Your task to perform on an android device: change alarm snooze length Image 0: 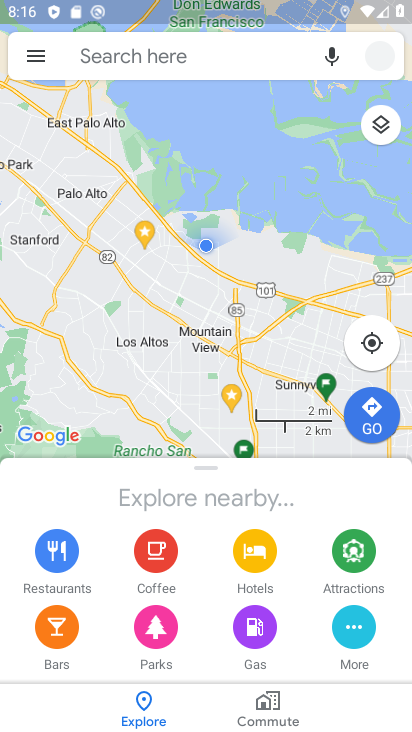
Step 0: press home button
Your task to perform on an android device: change alarm snooze length Image 1: 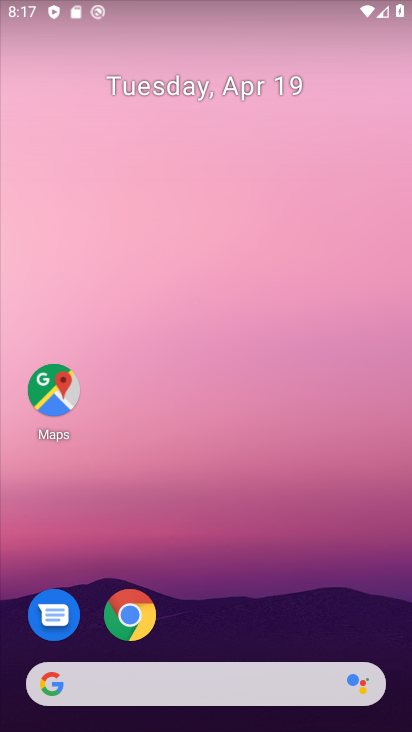
Step 1: drag from (218, 564) to (285, 90)
Your task to perform on an android device: change alarm snooze length Image 2: 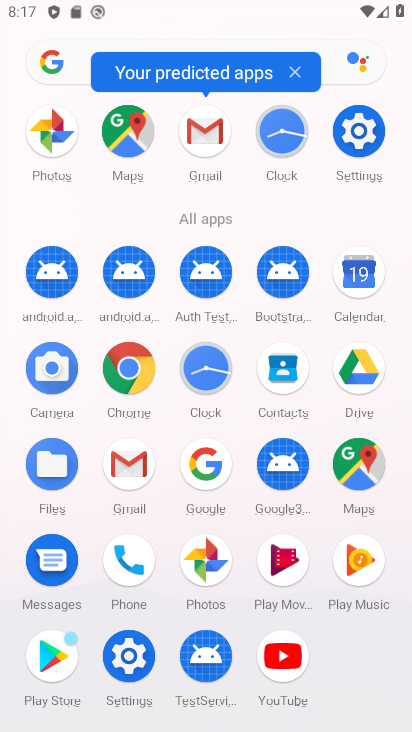
Step 2: click (274, 123)
Your task to perform on an android device: change alarm snooze length Image 3: 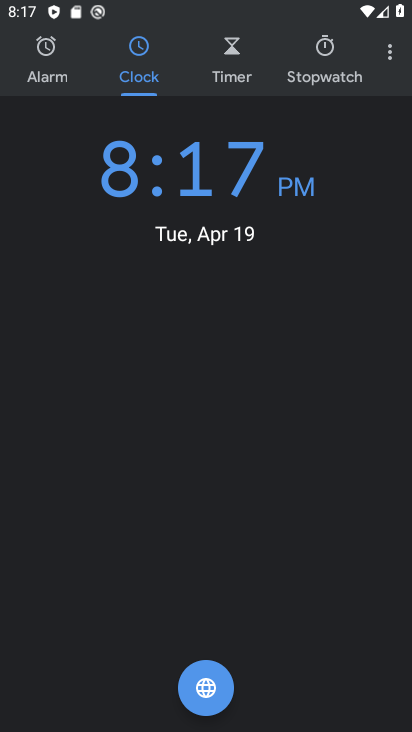
Step 3: click (392, 54)
Your task to perform on an android device: change alarm snooze length Image 4: 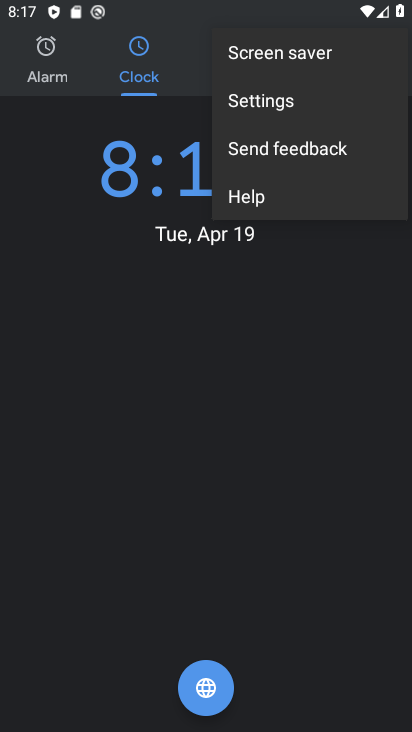
Step 4: click (285, 106)
Your task to perform on an android device: change alarm snooze length Image 5: 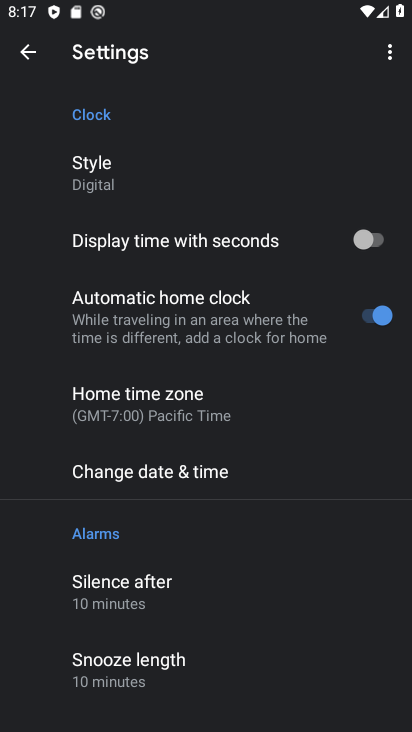
Step 5: click (154, 661)
Your task to perform on an android device: change alarm snooze length Image 6: 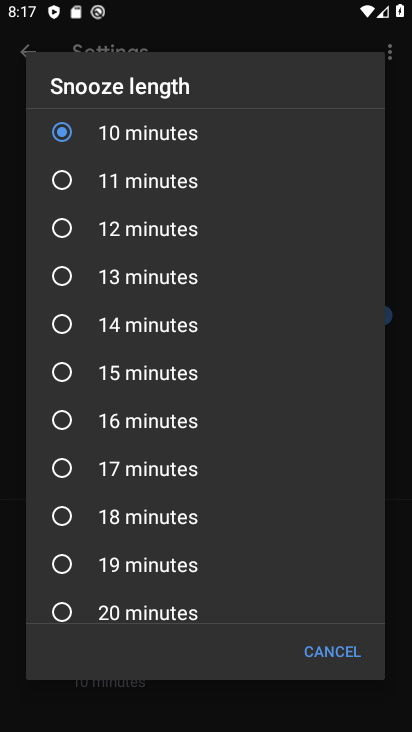
Step 6: click (61, 229)
Your task to perform on an android device: change alarm snooze length Image 7: 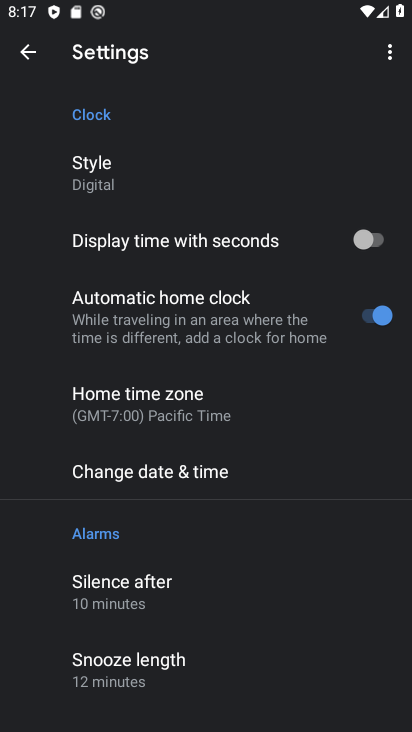
Step 7: task complete